Your task to perform on an android device: Open privacy settings Image 0: 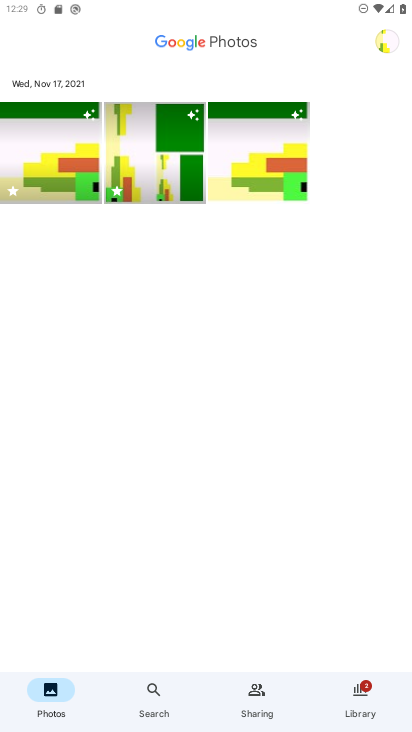
Step 0: press home button
Your task to perform on an android device: Open privacy settings Image 1: 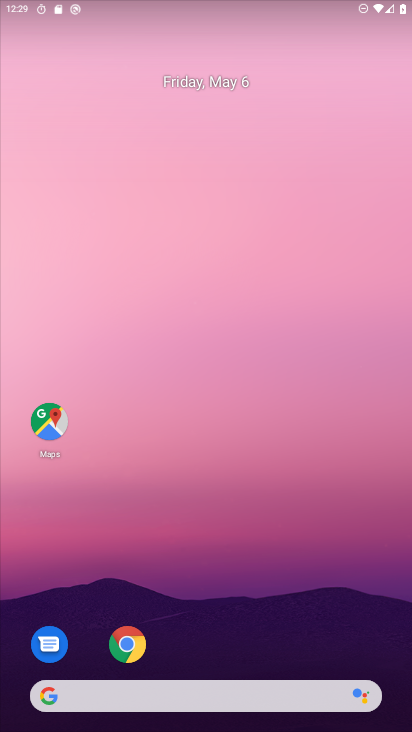
Step 1: drag from (376, 628) to (315, 227)
Your task to perform on an android device: Open privacy settings Image 2: 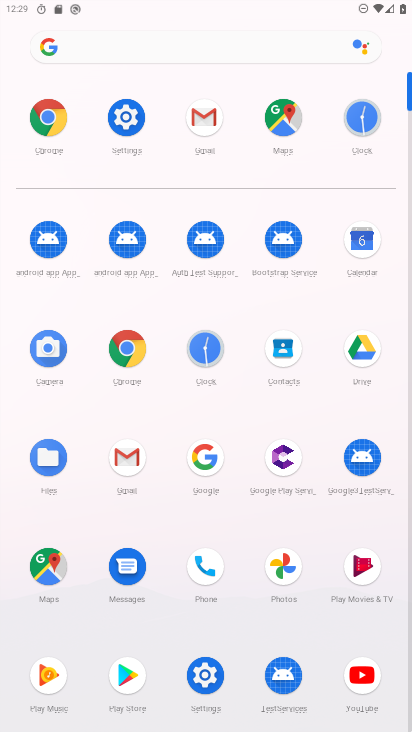
Step 2: click (192, 676)
Your task to perform on an android device: Open privacy settings Image 3: 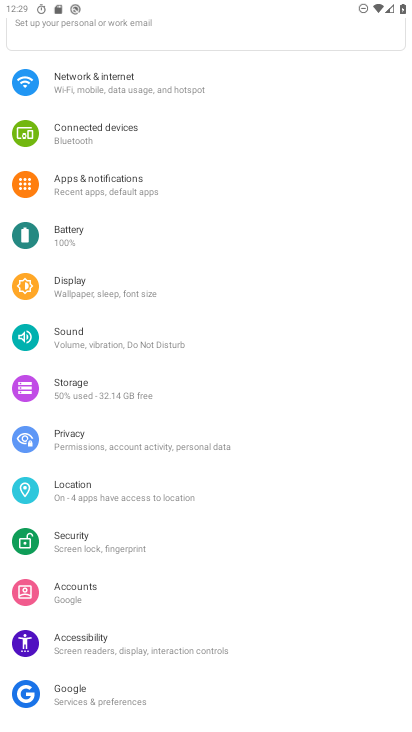
Step 3: click (106, 437)
Your task to perform on an android device: Open privacy settings Image 4: 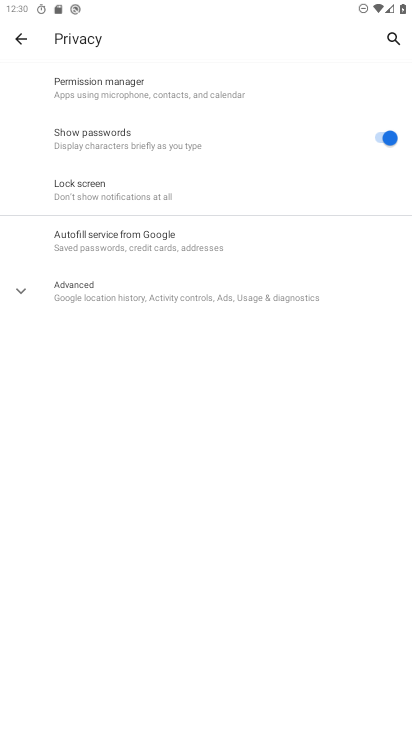
Step 4: task complete